Your task to perform on an android device: toggle wifi Image 0: 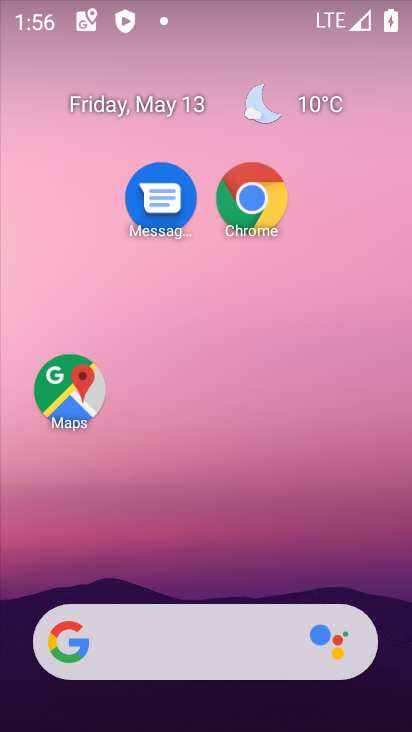
Step 0: drag from (196, 586) to (220, 23)
Your task to perform on an android device: toggle wifi Image 1: 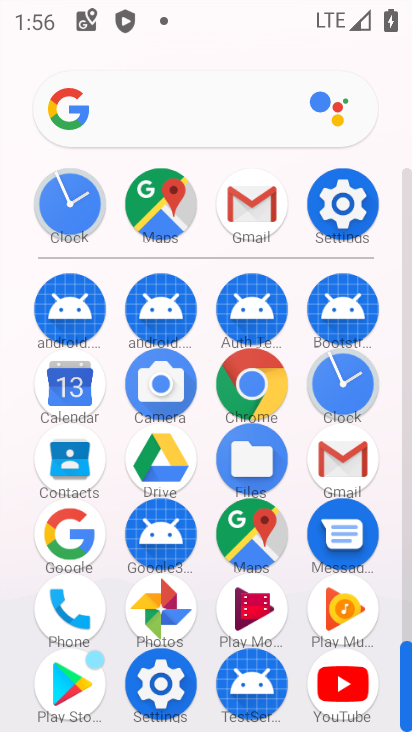
Step 1: click (336, 204)
Your task to perform on an android device: toggle wifi Image 2: 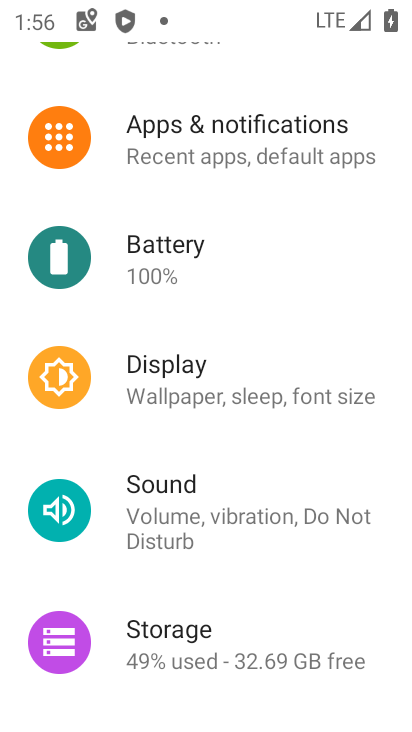
Step 2: drag from (237, 201) to (239, 488)
Your task to perform on an android device: toggle wifi Image 3: 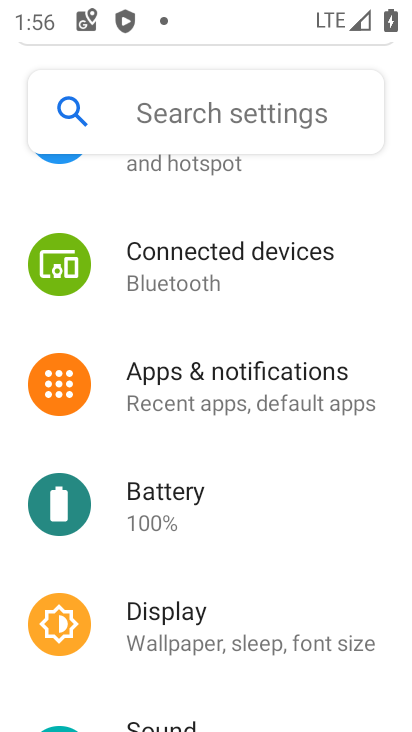
Step 3: drag from (242, 270) to (223, 565)
Your task to perform on an android device: toggle wifi Image 4: 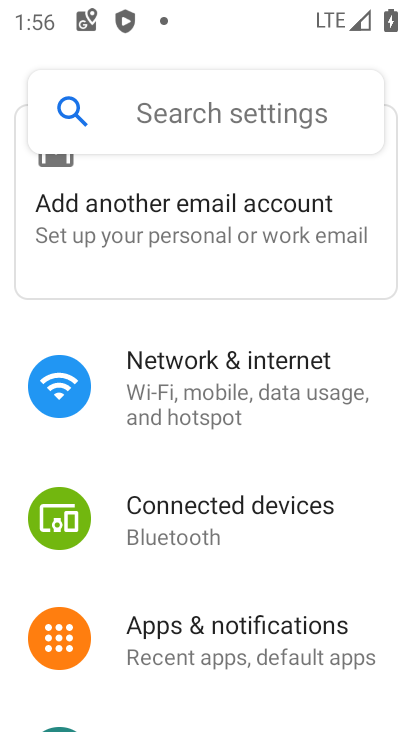
Step 4: click (235, 382)
Your task to perform on an android device: toggle wifi Image 5: 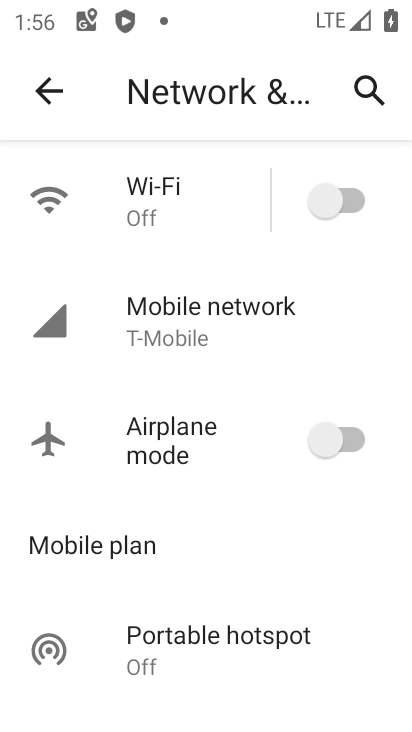
Step 5: click (342, 189)
Your task to perform on an android device: toggle wifi Image 6: 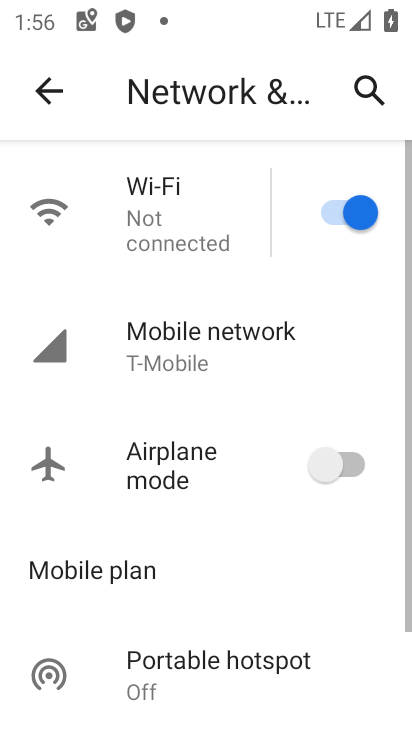
Step 6: task complete